Your task to perform on an android device: delete browsing data in the chrome app Image 0: 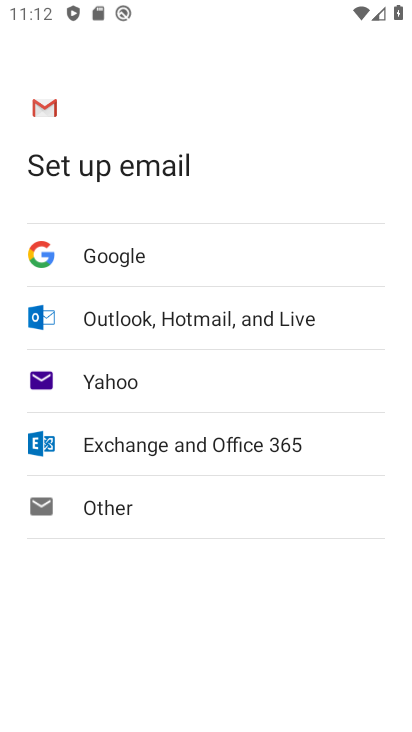
Step 0: press home button
Your task to perform on an android device: delete browsing data in the chrome app Image 1: 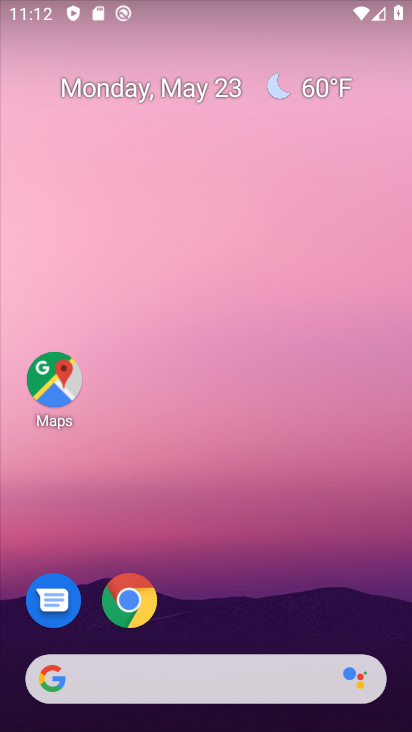
Step 1: drag from (254, 693) to (167, 146)
Your task to perform on an android device: delete browsing data in the chrome app Image 2: 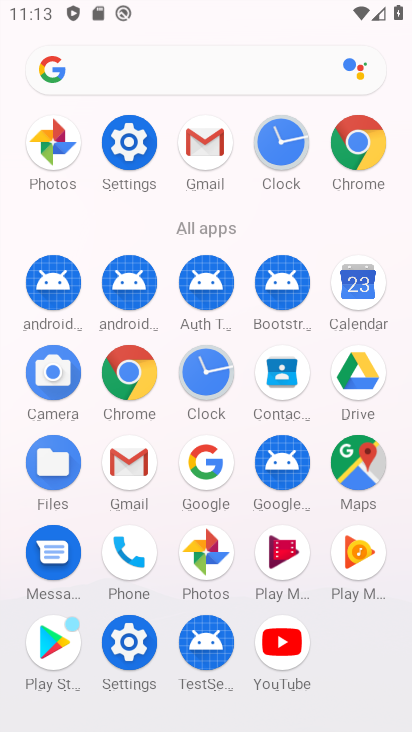
Step 2: click (352, 143)
Your task to perform on an android device: delete browsing data in the chrome app Image 3: 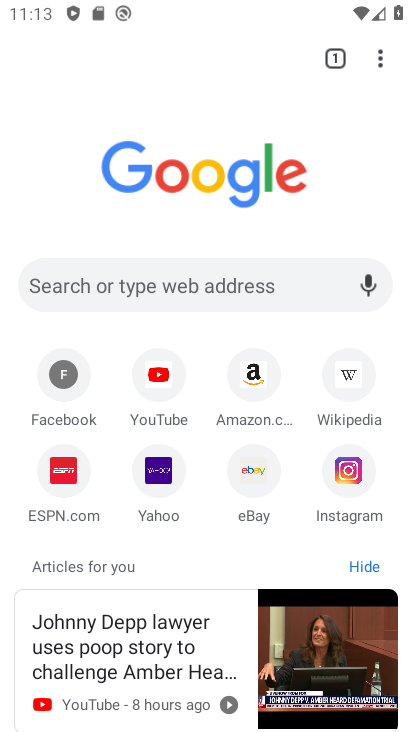
Step 3: click (379, 70)
Your task to perform on an android device: delete browsing data in the chrome app Image 4: 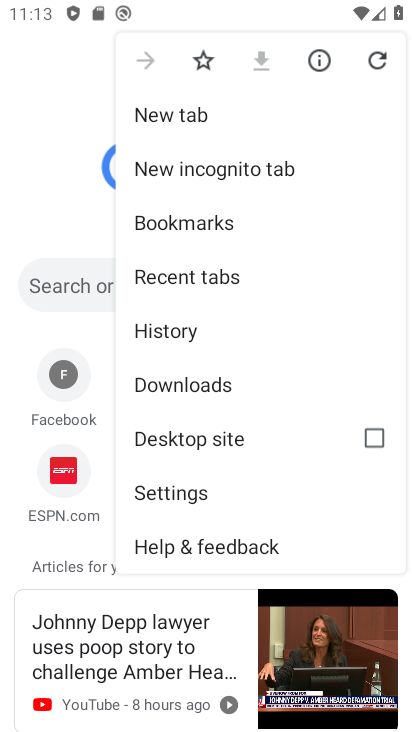
Step 4: click (163, 496)
Your task to perform on an android device: delete browsing data in the chrome app Image 5: 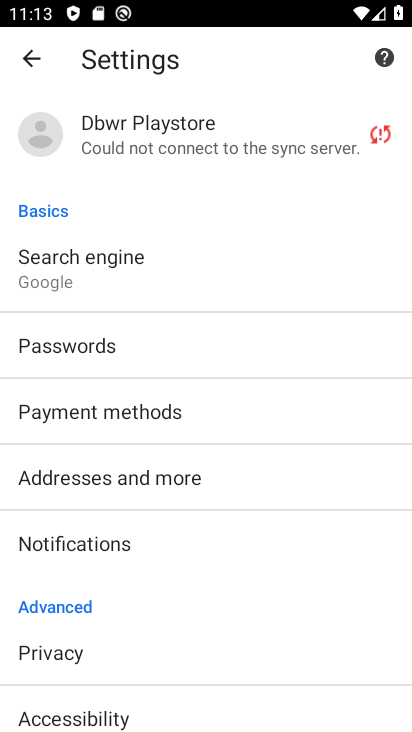
Step 5: click (66, 656)
Your task to perform on an android device: delete browsing data in the chrome app Image 6: 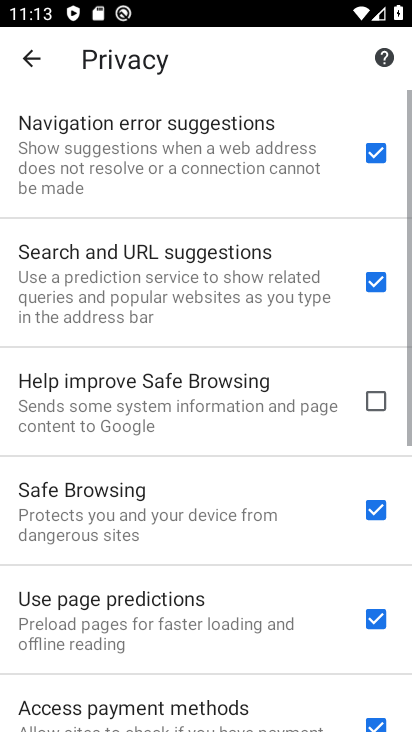
Step 6: drag from (161, 643) to (176, 250)
Your task to perform on an android device: delete browsing data in the chrome app Image 7: 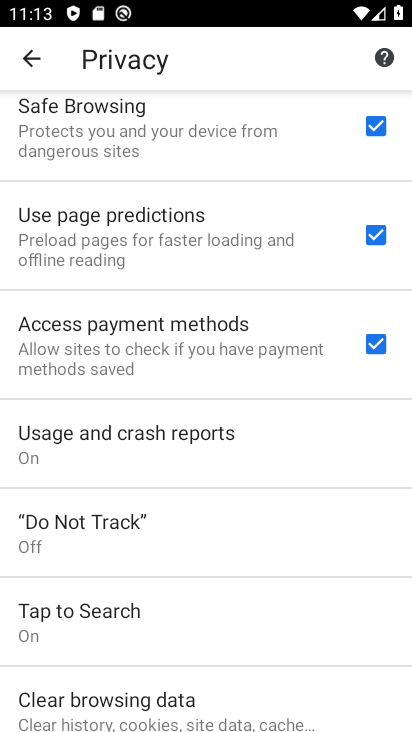
Step 7: drag from (133, 700) to (145, 541)
Your task to perform on an android device: delete browsing data in the chrome app Image 8: 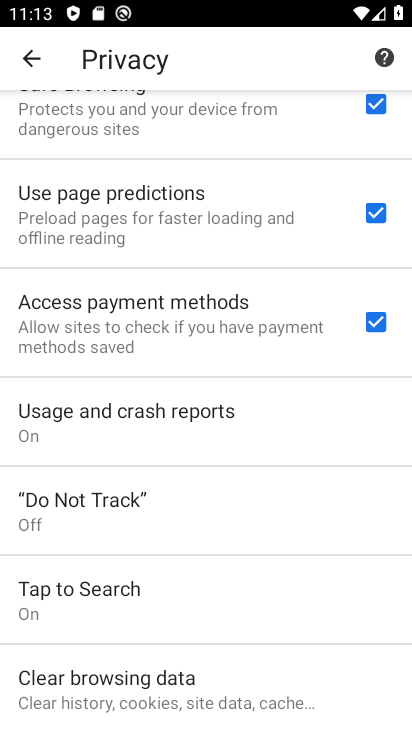
Step 8: click (150, 680)
Your task to perform on an android device: delete browsing data in the chrome app Image 9: 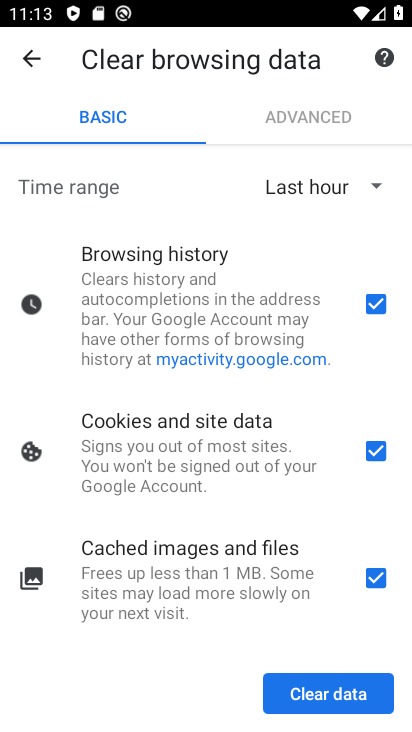
Step 9: task complete